Your task to perform on an android device: open sync settings in chrome Image 0: 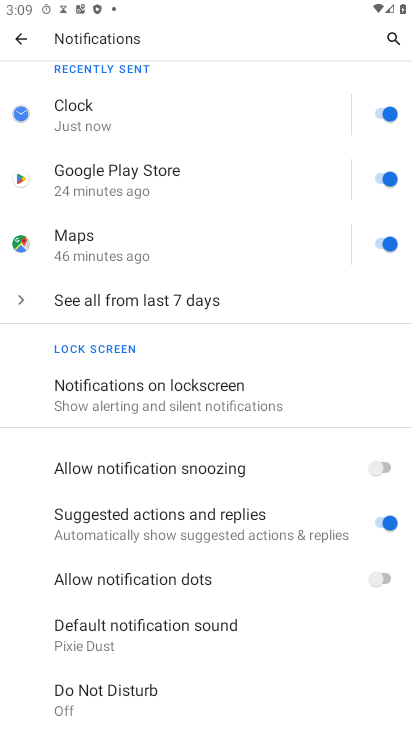
Step 0: press home button
Your task to perform on an android device: open sync settings in chrome Image 1: 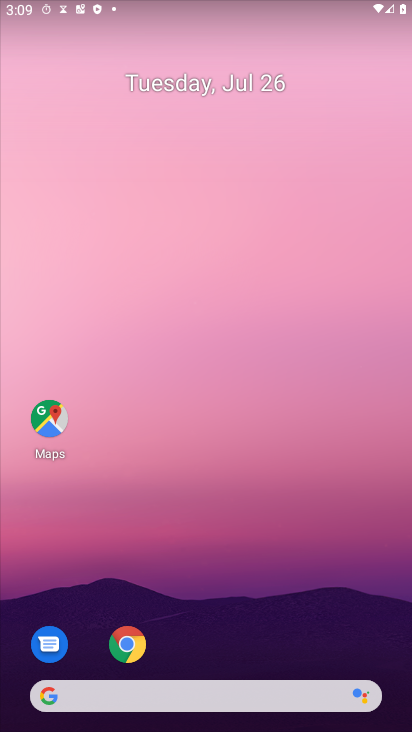
Step 1: click (125, 647)
Your task to perform on an android device: open sync settings in chrome Image 2: 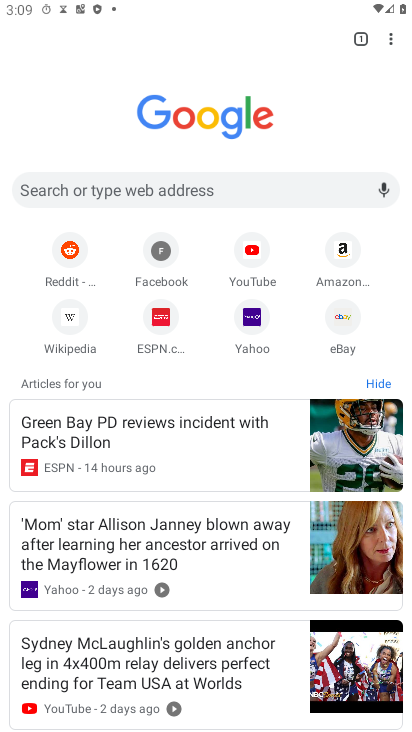
Step 2: drag from (388, 40) to (257, 331)
Your task to perform on an android device: open sync settings in chrome Image 3: 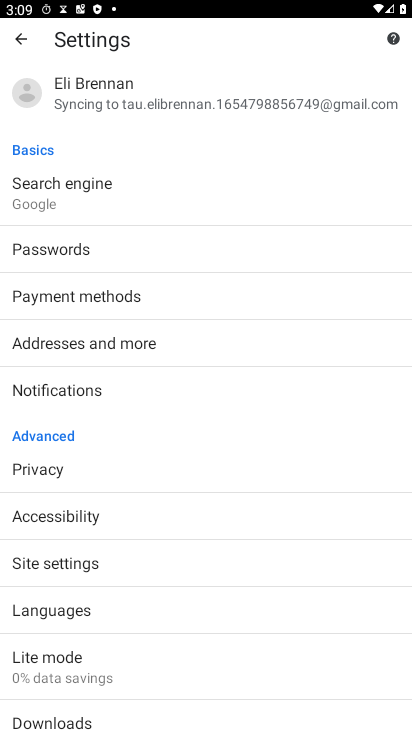
Step 3: click (177, 100)
Your task to perform on an android device: open sync settings in chrome Image 4: 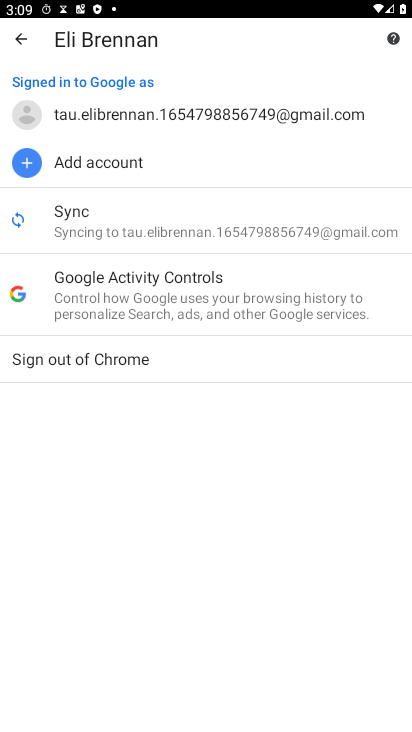
Step 4: click (200, 230)
Your task to perform on an android device: open sync settings in chrome Image 5: 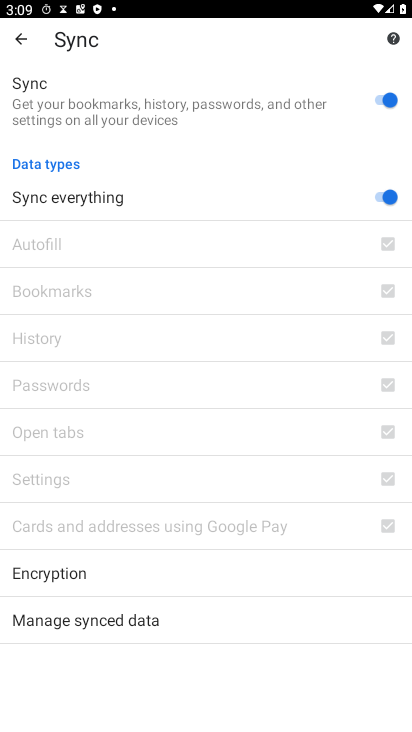
Step 5: task complete